Your task to perform on an android device: Open Wikipedia Image 0: 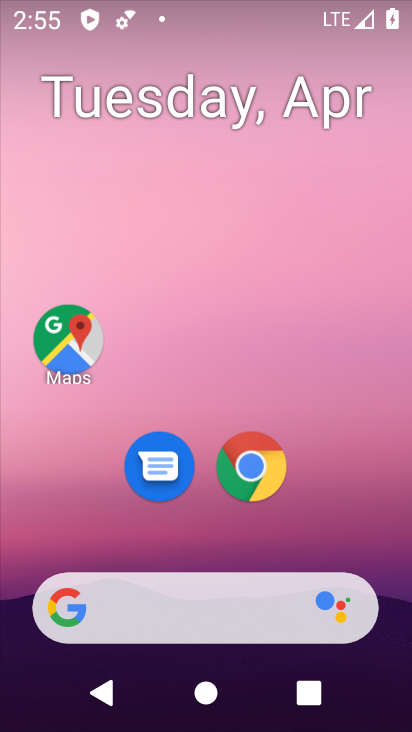
Step 0: drag from (224, 546) to (182, 4)
Your task to perform on an android device: Open Wikipedia Image 1: 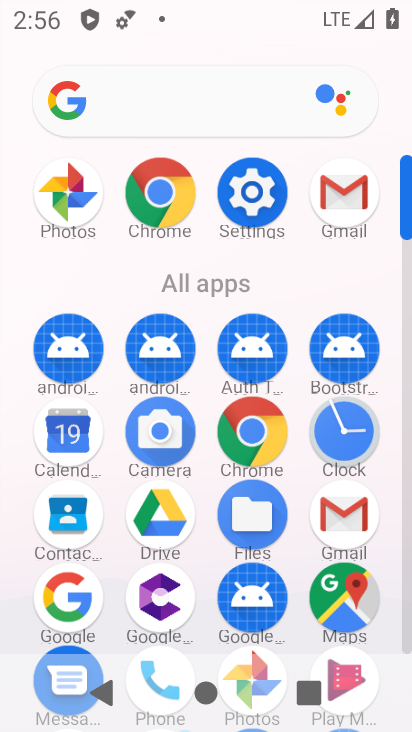
Step 1: click (250, 448)
Your task to perform on an android device: Open Wikipedia Image 2: 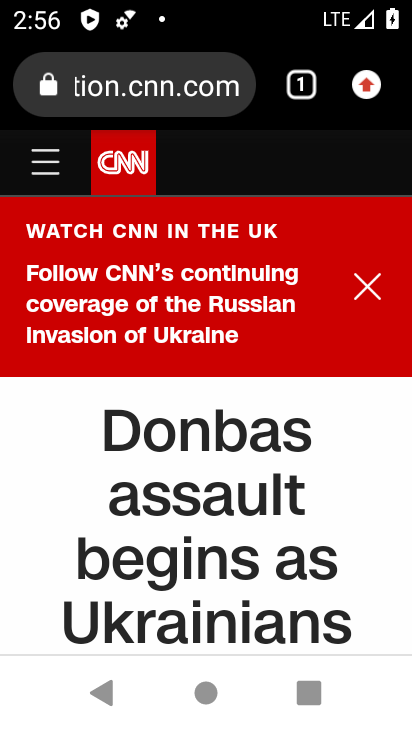
Step 2: click (296, 76)
Your task to perform on an android device: Open Wikipedia Image 3: 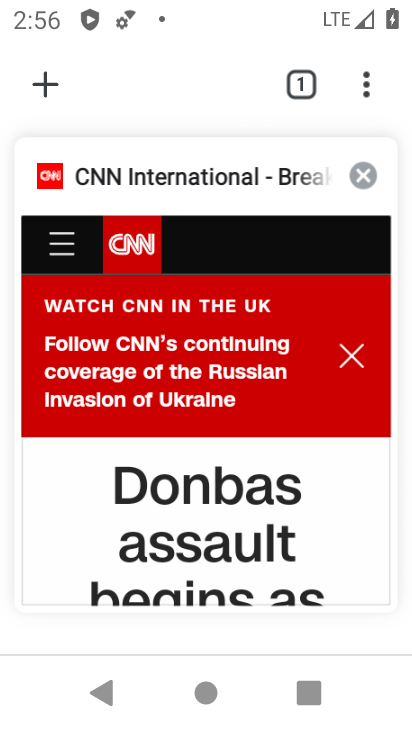
Step 3: click (48, 78)
Your task to perform on an android device: Open Wikipedia Image 4: 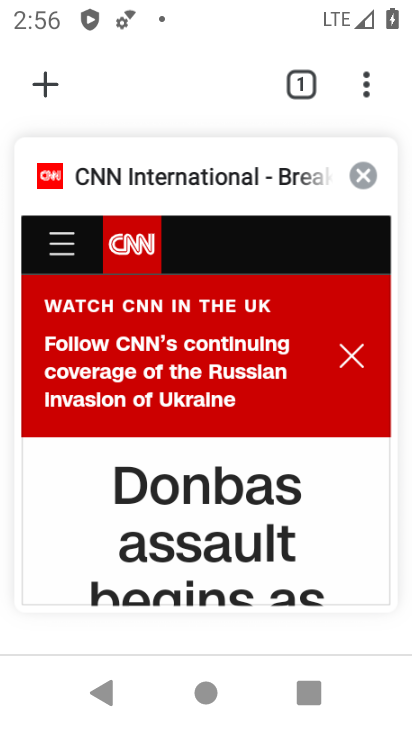
Step 4: click (43, 64)
Your task to perform on an android device: Open Wikipedia Image 5: 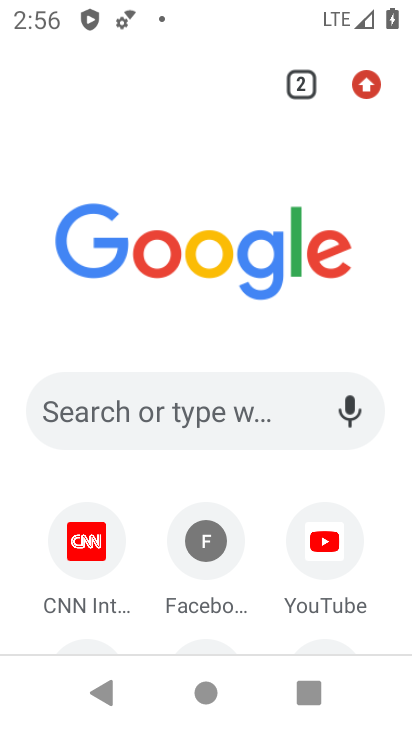
Step 5: drag from (248, 583) to (178, 134)
Your task to perform on an android device: Open Wikipedia Image 6: 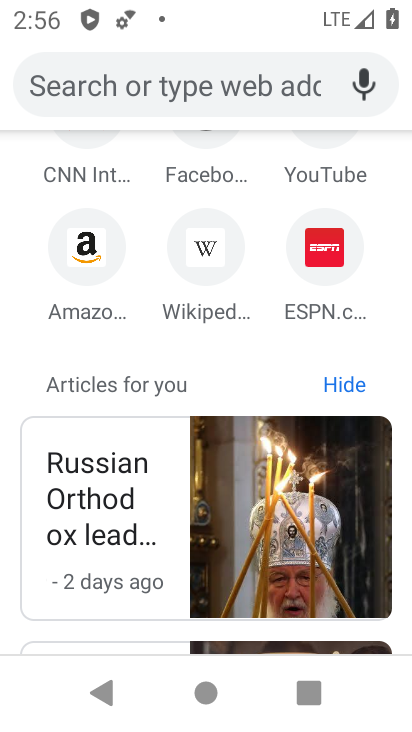
Step 6: click (199, 230)
Your task to perform on an android device: Open Wikipedia Image 7: 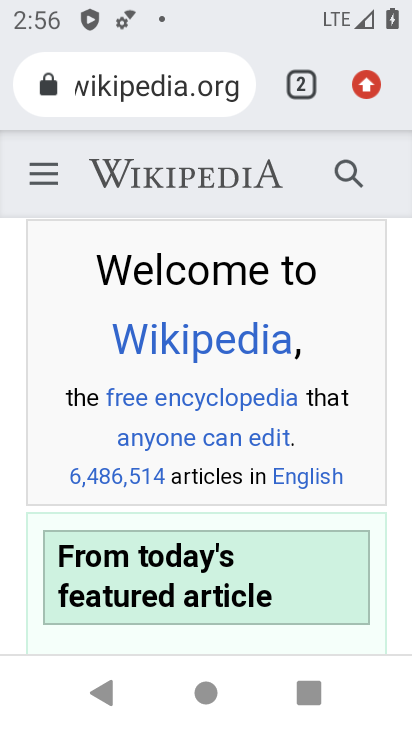
Step 7: task complete